Your task to perform on an android device: Empty the shopping cart on bestbuy. Add "logitech g903" to the cart on bestbuy Image 0: 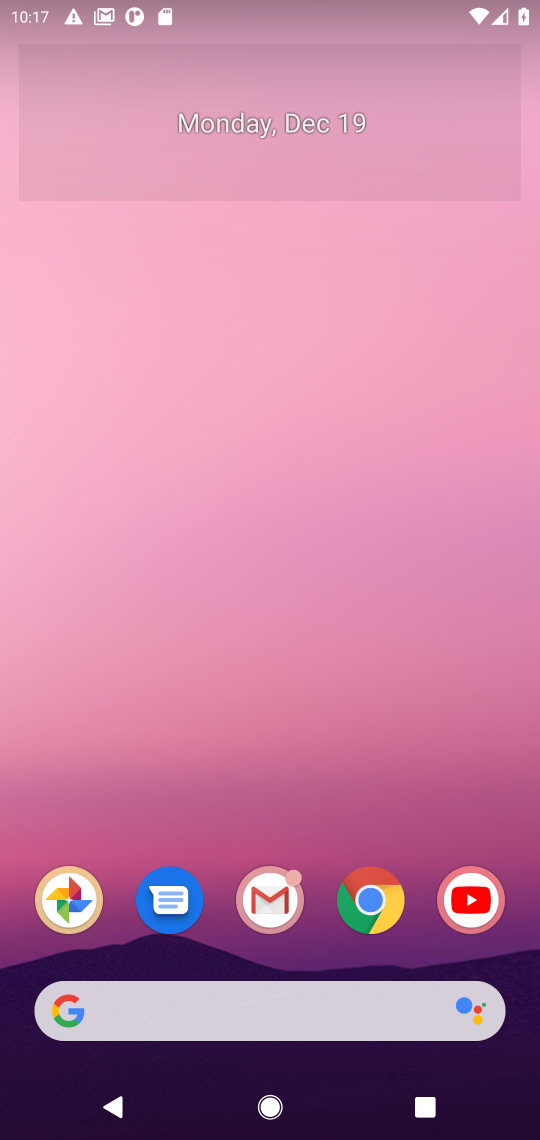
Step 0: task complete